Your task to perform on an android device: turn on data saver in the chrome app Image 0: 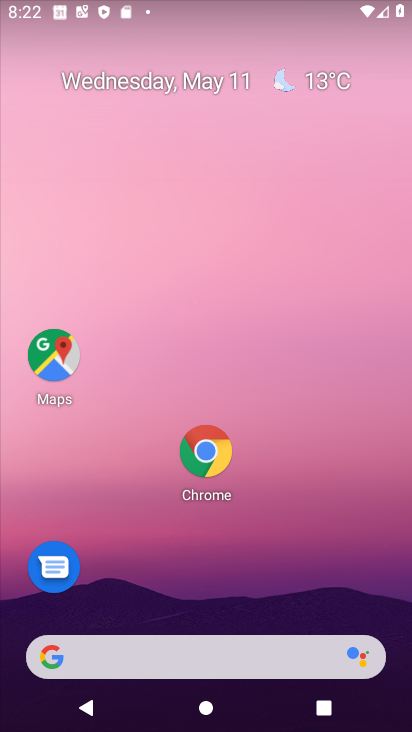
Step 0: drag from (139, 652) to (261, 198)
Your task to perform on an android device: turn on data saver in the chrome app Image 1: 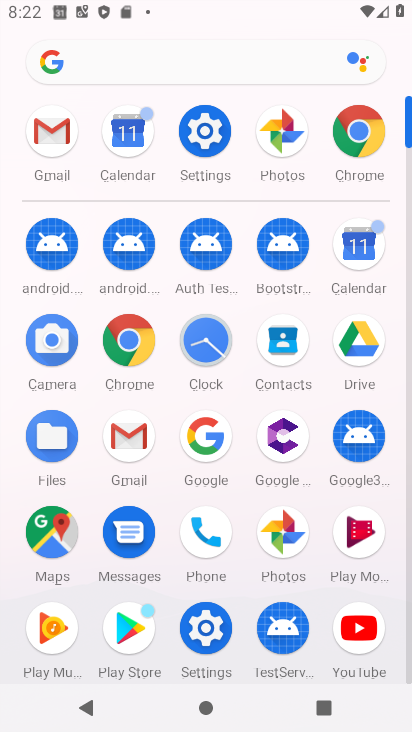
Step 1: click (359, 144)
Your task to perform on an android device: turn on data saver in the chrome app Image 2: 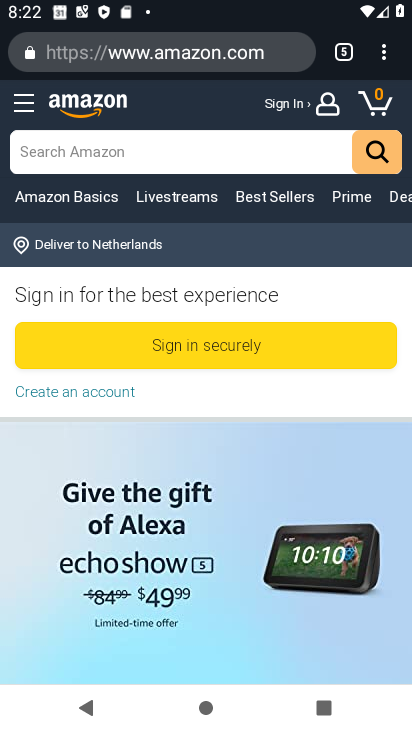
Step 2: drag from (384, 59) to (191, 619)
Your task to perform on an android device: turn on data saver in the chrome app Image 3: 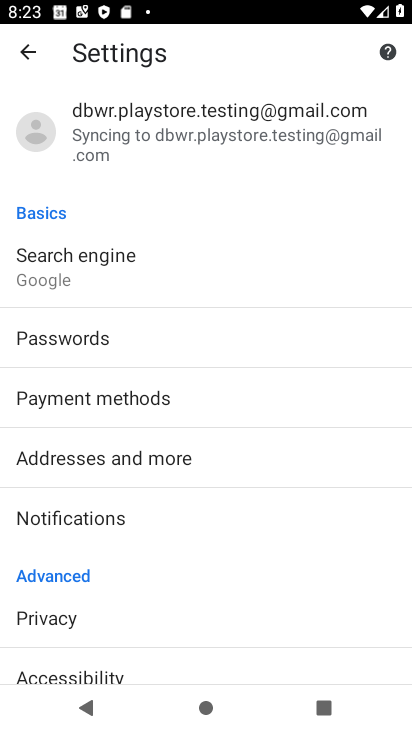
Step 3: drag from (132, 622) to (263, 190)
Your task to perform on an android device: turn on data saver in the chrome app Image 4: 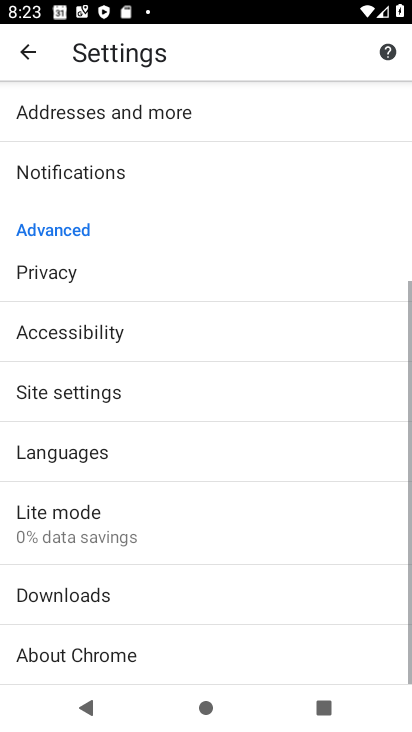
Step 4: click (69, 526)
Your task to perform on an android device: turn on data saver in the chrome app Image 5: 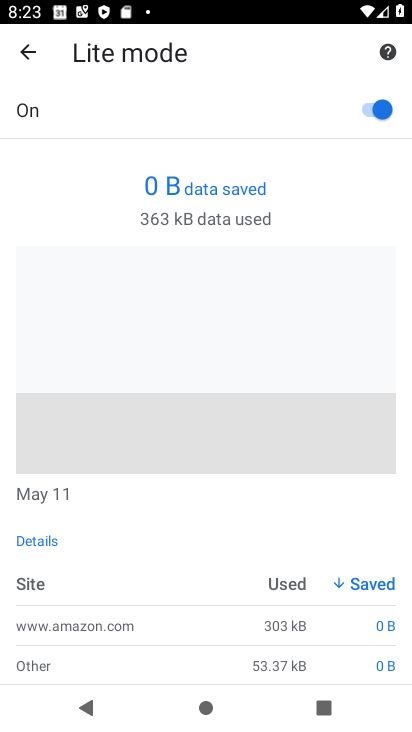
Step 5: task complete